Your task to perform on an android device: Go to Wikipedia Image 0: 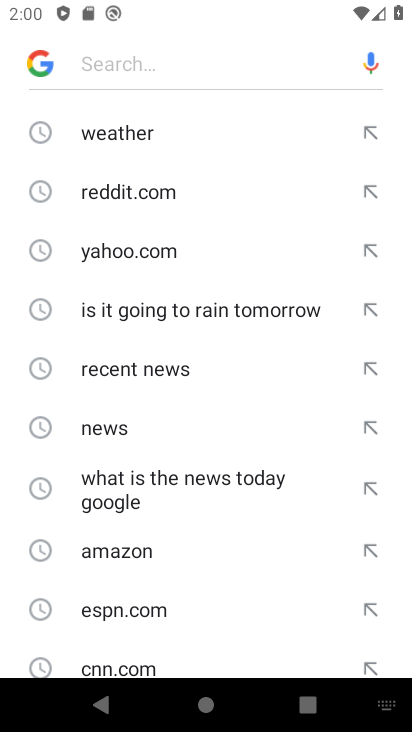
Step 0: press home button
Your task to perform on an android device: Go to Wikipedia Image 1: 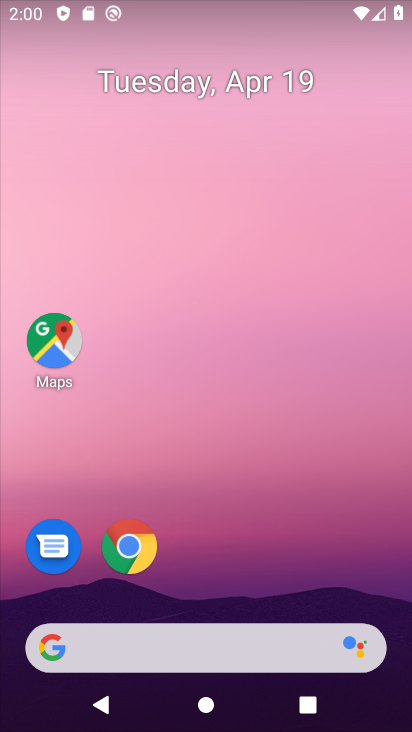
Step 1: click (116, 566)
Your task to perform on an android device: Go to Wikipedia Image 2: 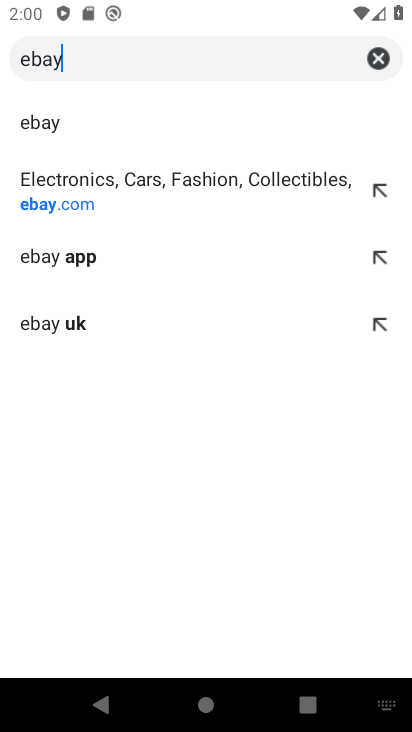
Step 2: click (387, 49)
Your task to perform on an android device: Go to Wikipedia Image 3: 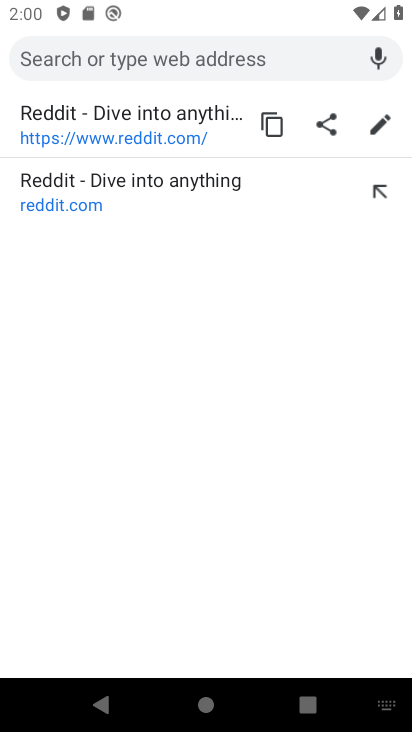
Step 3: press back button
Your task to perform on an android device: Go to Wikipedia Image 4: 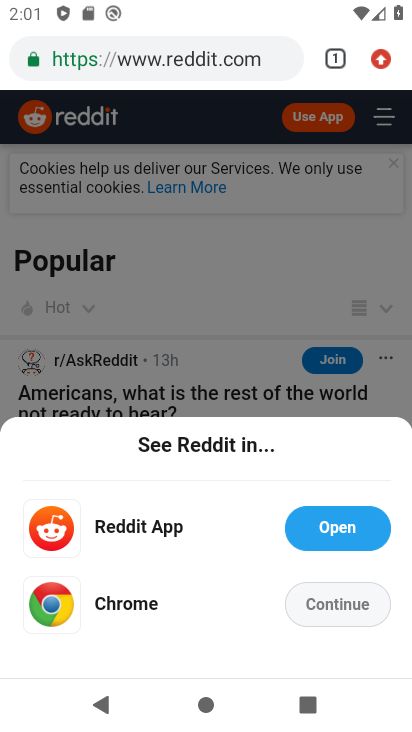
Step 4: click (237, 51)
Your task to perform on an android device: Go to Wikipedia Image 5: 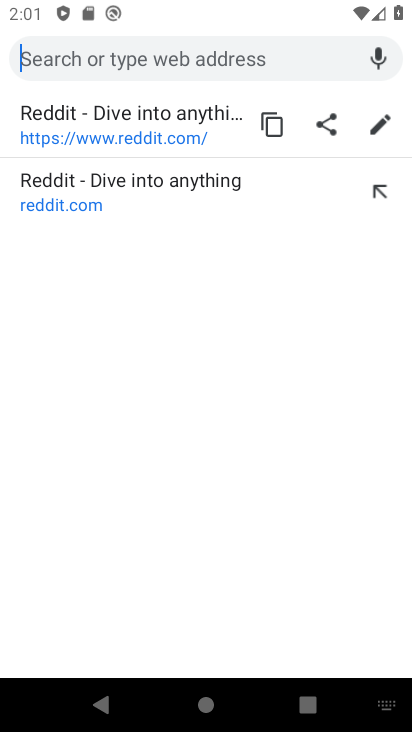
Step 5: type "wikipedia"
Your task to perform on an android device: Go to Wikipedia Image 6: 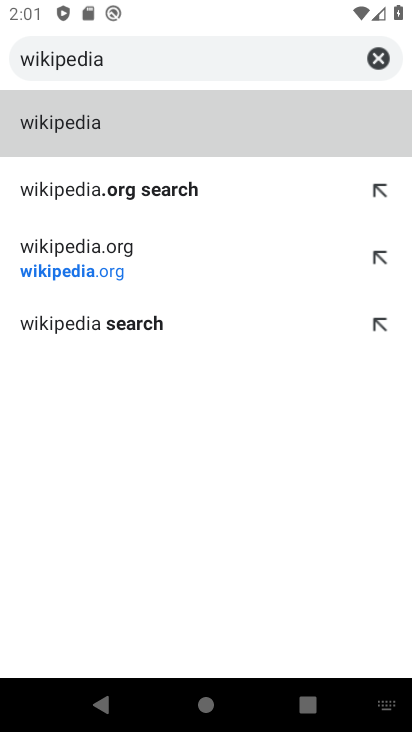
Step 6: click (171, 255)
Your task to perform on an android device: Go to Wikipedia Image 7: 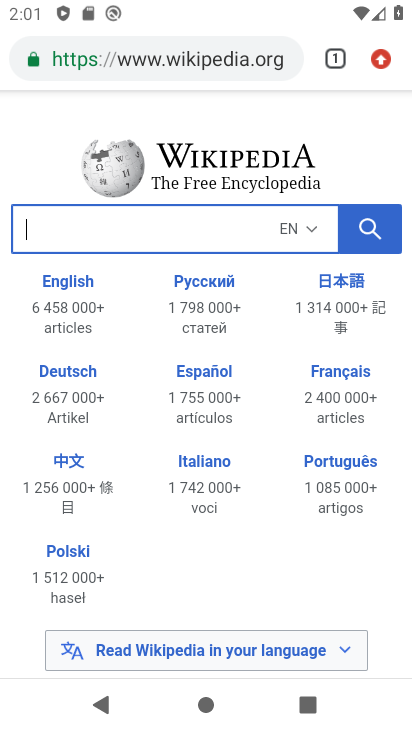
Step 7: task complete